Your task to perform on an android device: check out phone information Image 0: 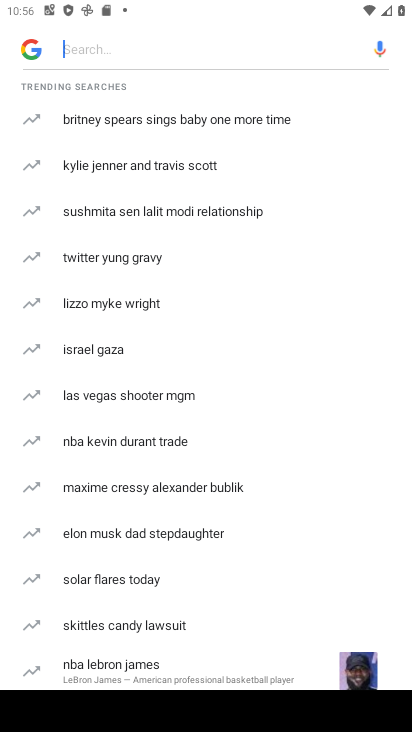
Step 0: press home button
Your task to perform on an android device: check out phone information Image 1: 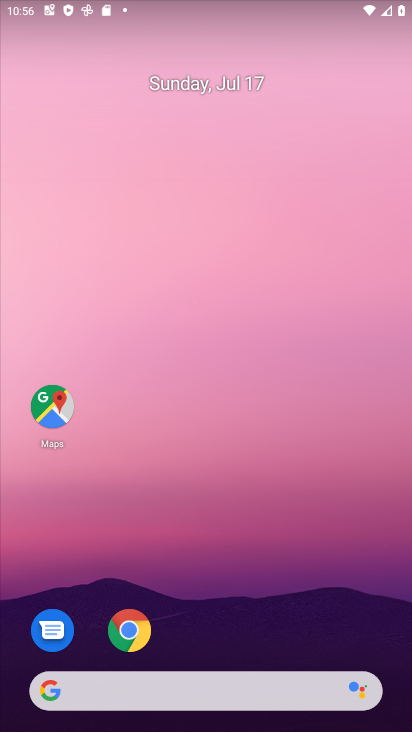
Step 1: drag from (244, 631) to (226, 174)
Your task to perform on an android device: check out phone information Image 2: 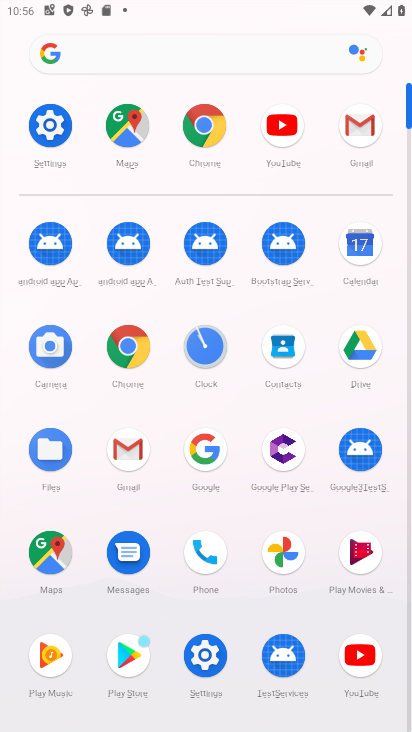
Step 2: click (36, 118)
Your task to perform on an android device: check out phone information Image 3: 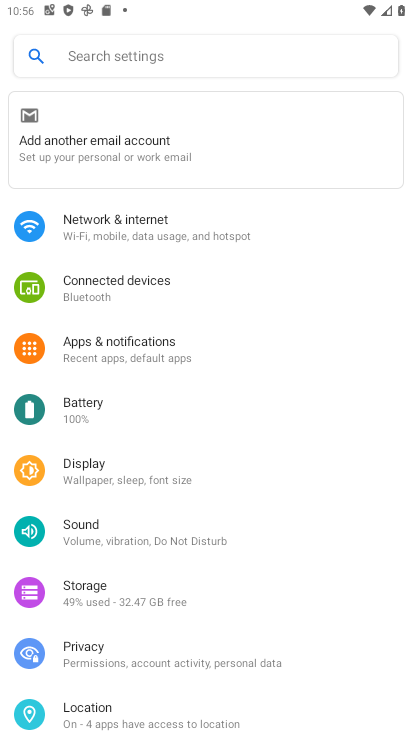
Step 3: drag from (155, 676) to (221, 368)
Your task to perform on an android device: check out phone information Image 4: 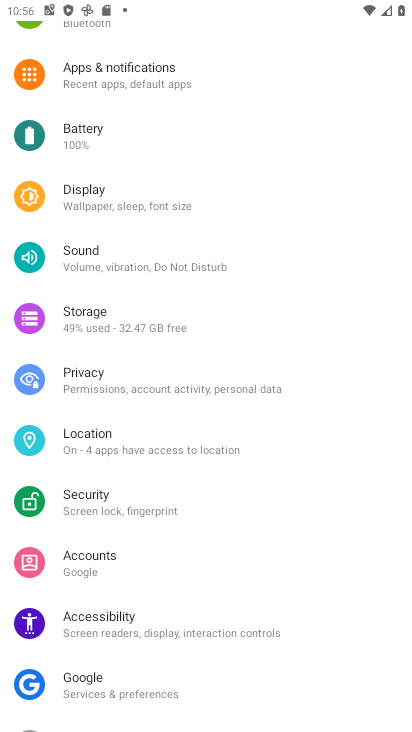
Step 4: drag from (150, 691) to (153, 580)
Your task to perform on an android device: check out phone information Image 5: 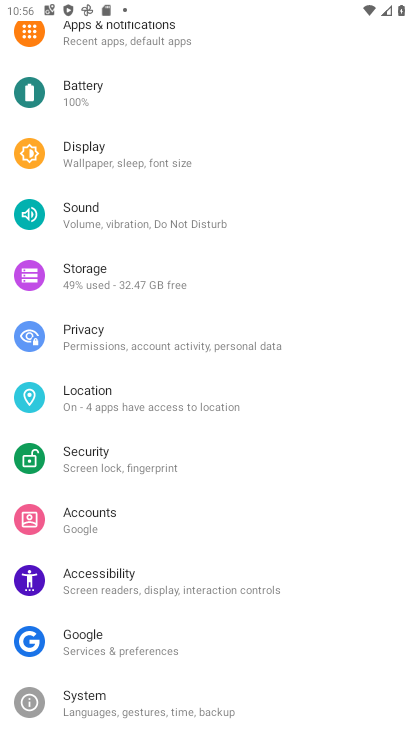
Step 5: click (170, 703)
Your task to perform on an android device: check out phone information Image 6: 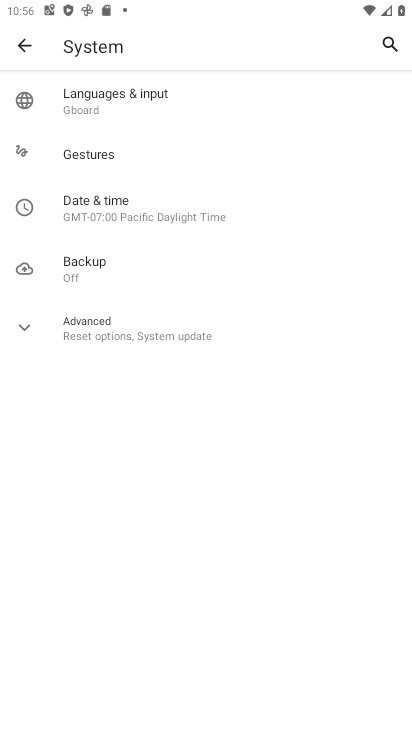
Step 6: task complete